Your task to perform on an android device: set an alarm Image 0: 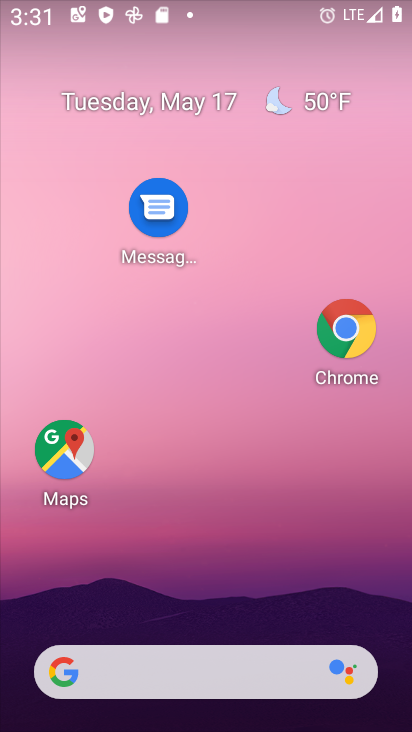
Step 0: drag from (256, 587) to (272, 472)
Your task to perform on an android device: set an alarm Image 1: 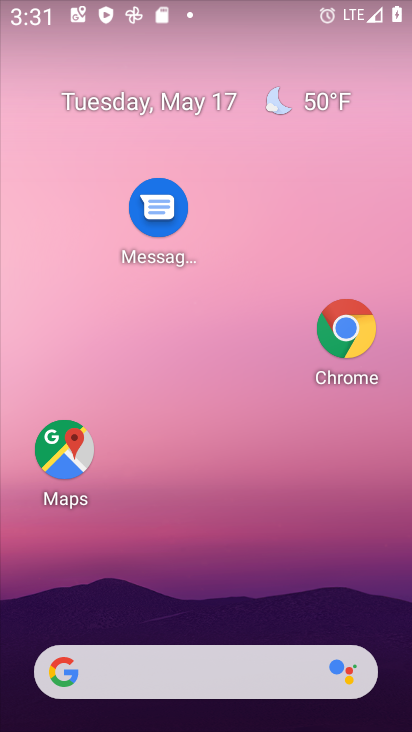
Step 1: drag from (272, 472) to (243, 0)
Your task to perform on an android device: set an alarm Image 2: 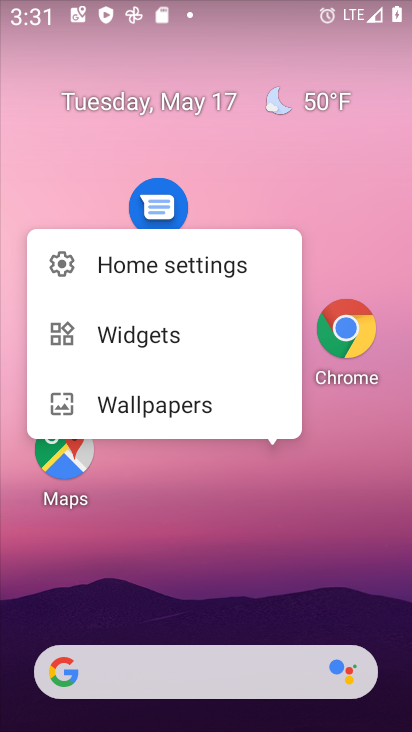
Step 2: click (213, 548)
Your task to perform on an android device: set an alarm Image 3: 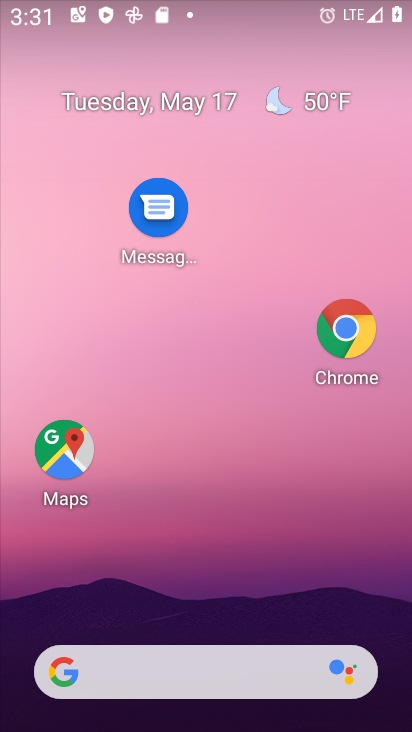
Step 3: drag from (213, 548) to (230, 39)
Your task to perform on an android device: set an alarm Image 4: 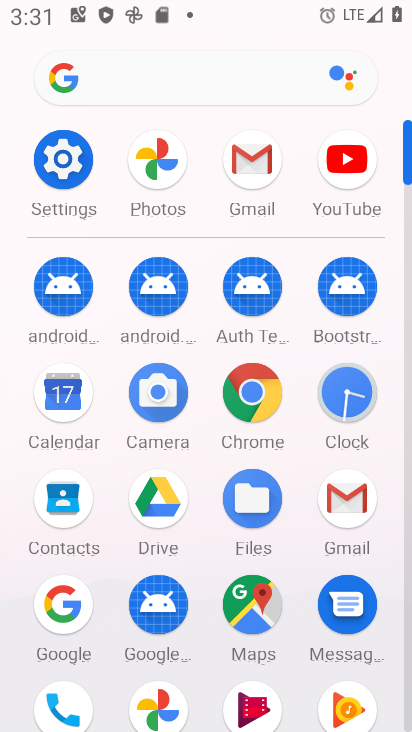
Step 4: click (364, 428)
Your task to perform on an android device: set an alarm Image 5: 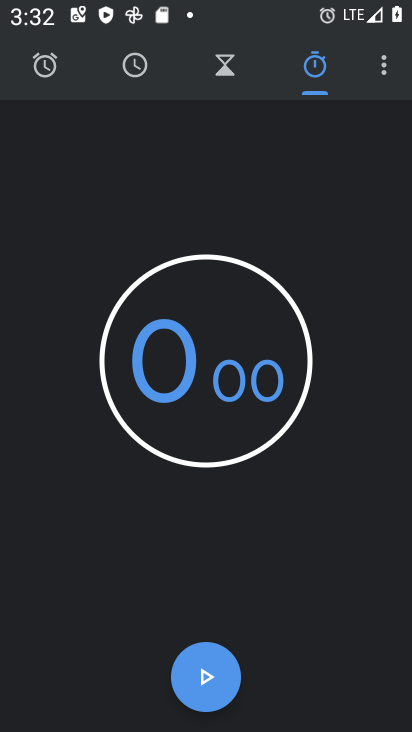
Step 5: click (65, 64)
Your task to perform on an android device: set an alarm Image 6: 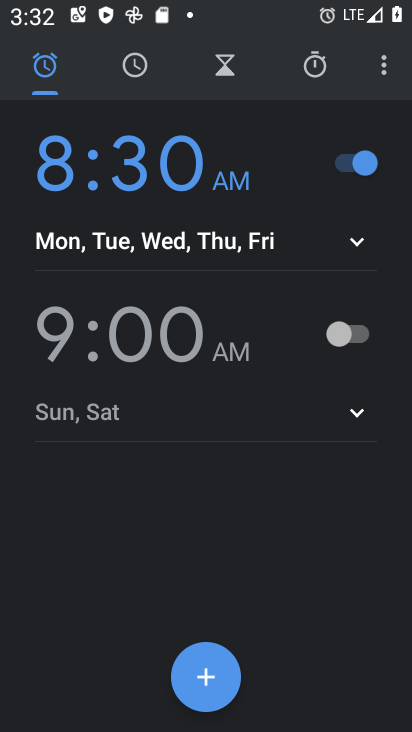
Step 6: task complete